Your task to perform on an android device: Open Google Chrome Image 0: 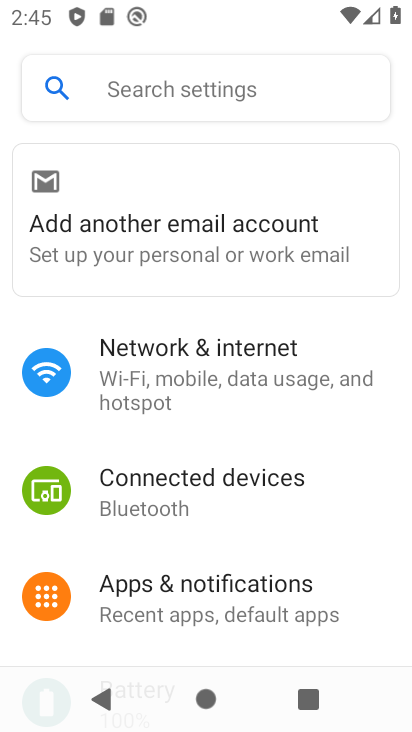
Step 0: press home button
Your task to perform on an android device: Open Google Chrome Image 1: 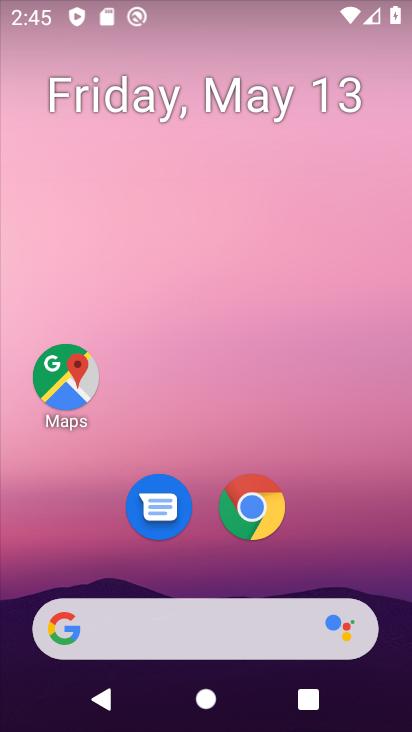
Step 1: click (236, 507)
Your task to perform on an android device: Open Google Chrome Image 2: 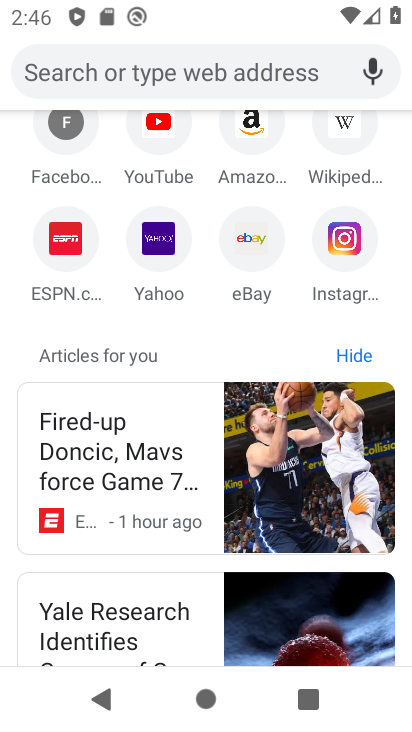
Step 2: task complete